Your task to perform on an android device: change the clock style Image 0: 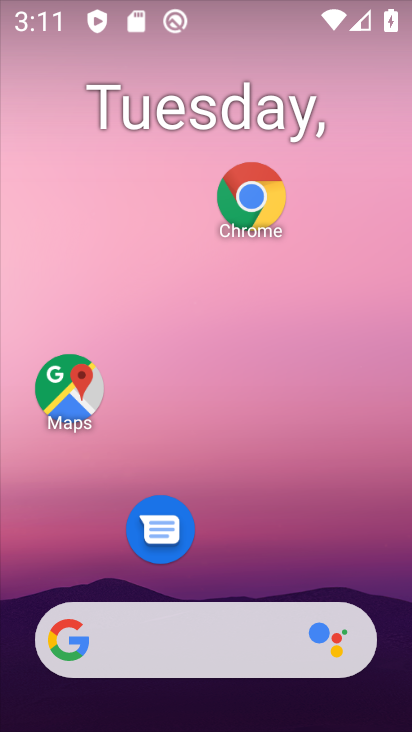
Step 0: drag from (217, 580) to (202, 217)
Your task to perform on an android device: change the clock style Image 1: 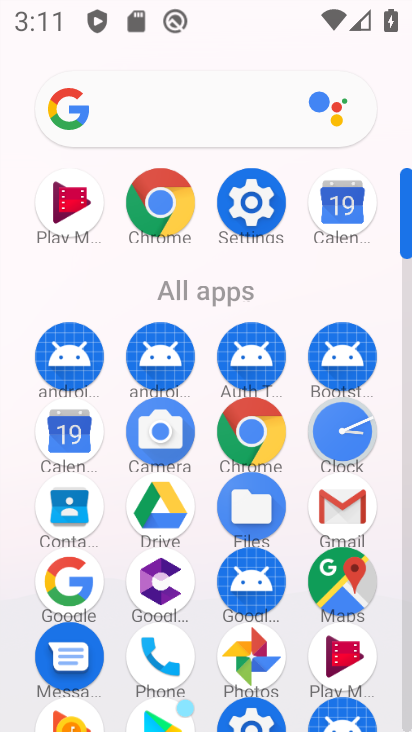
Step 1: click (334, 437)
Your task to perform on an android device: change the clock style Image 2: 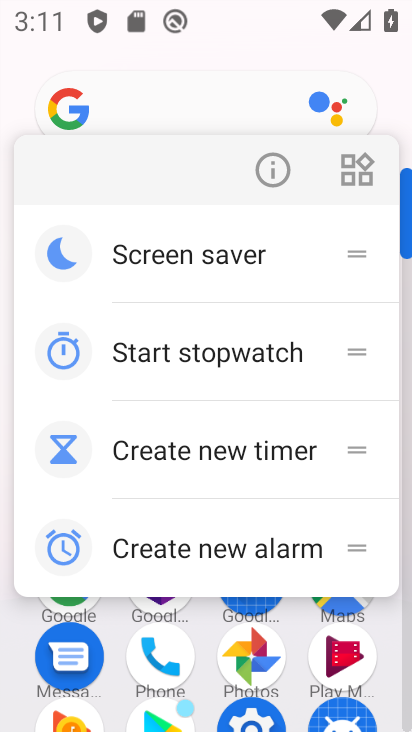
Step 2: click (383, 625)
Your task to perform on an android device: change the clock style Image 3: 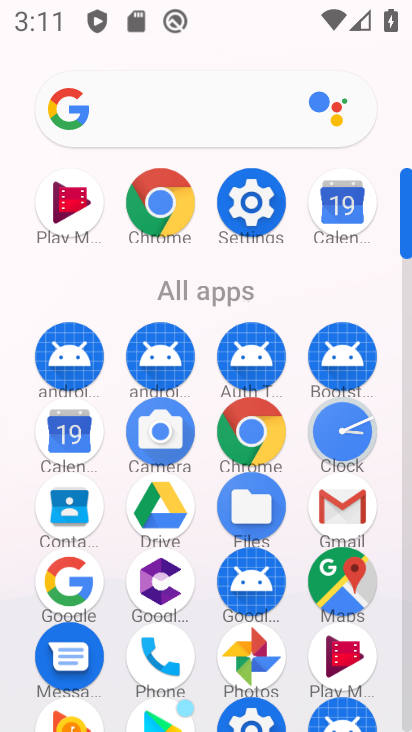
Step 3: click (342, 447)
Your task to perform on an android device: change the clock style Image 4: 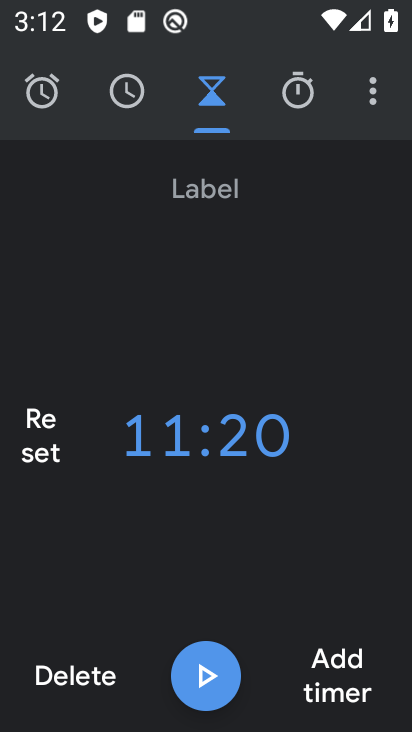
Step 4: click (375, 91)
Your task to perform on an android device: change the clock style Image 5: 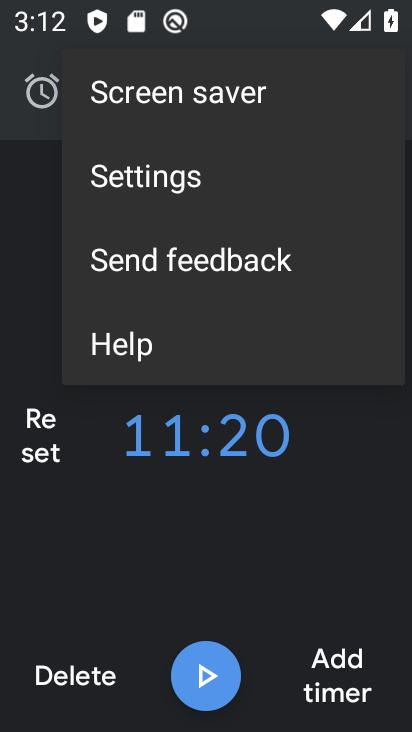
Step 5: click (156, 180)
Your task to perform on an android device: change the clock style Image 6: 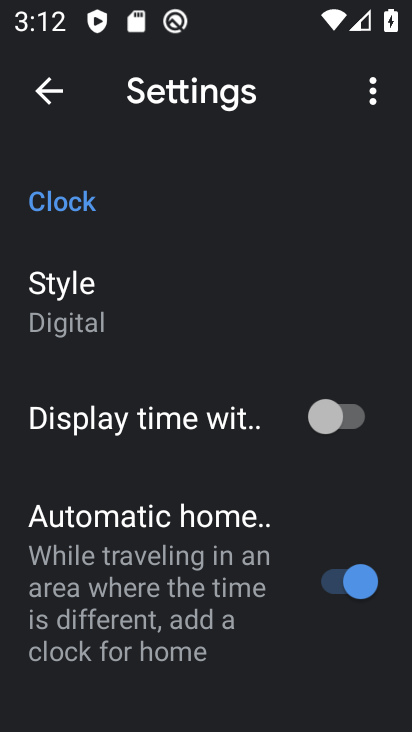
Step 6: click (67, 312)
Your task to perform on an android device: change the clock style Image 7: 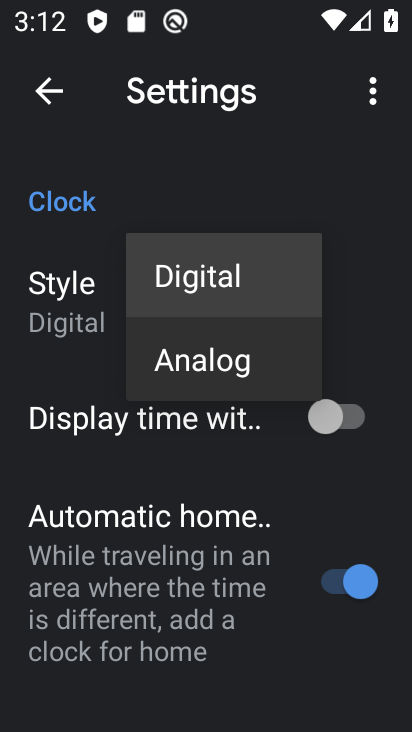
Step 7: click (173, 372)
Your task to perform on an android device: change the clock style Image 8: 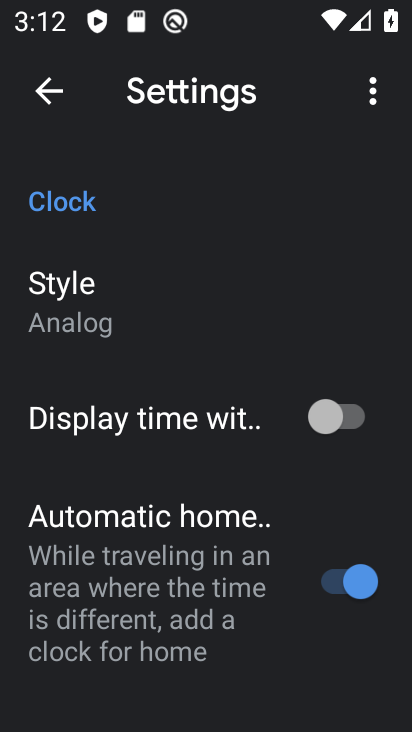
Step 8: task complete